Your task to perform on an android device: turn on data saver in the chrome app Image 0: 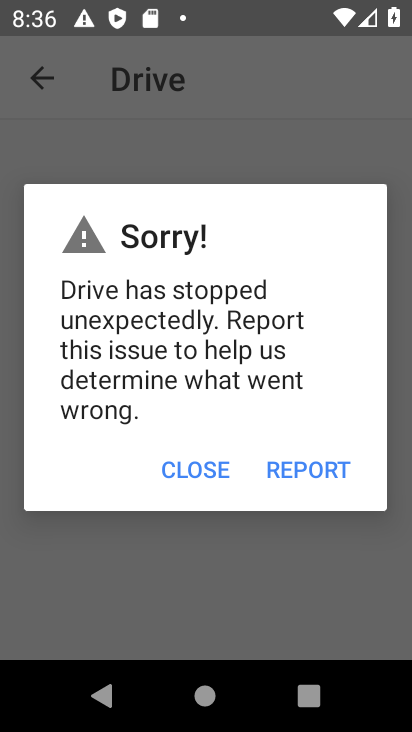
Step 0: press home button
Your task to perform on an android device: turn on data saver in the chrome app Image 1: 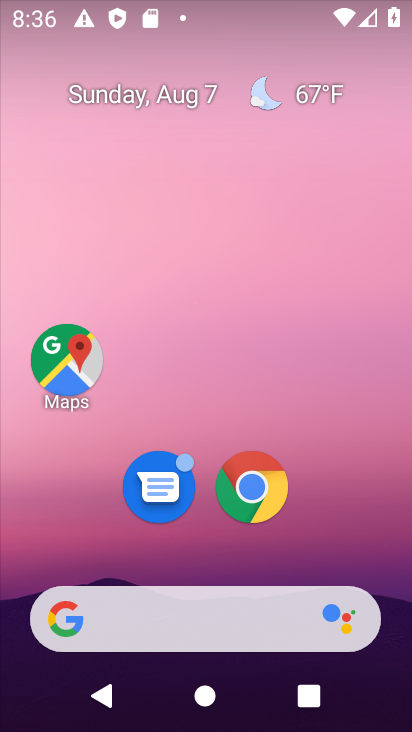
Step 1: click (254, 486)
Your task to perform on an android device: turn on data saver in the chrome app Image 2: 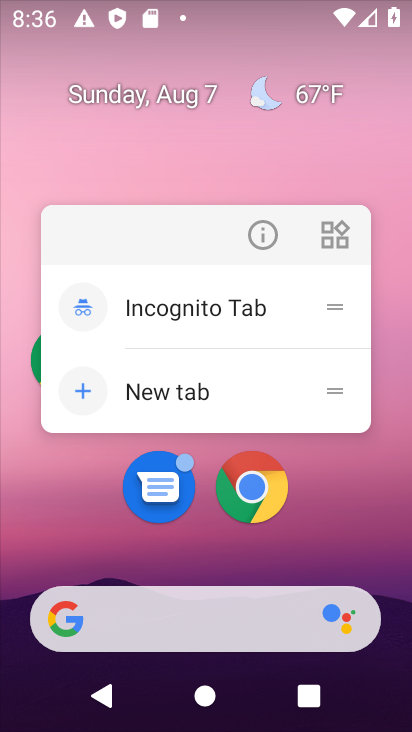
Step 2: click (256, 481)
Your task to perform on an android device: turn on data saver in the chrome app Image 3: 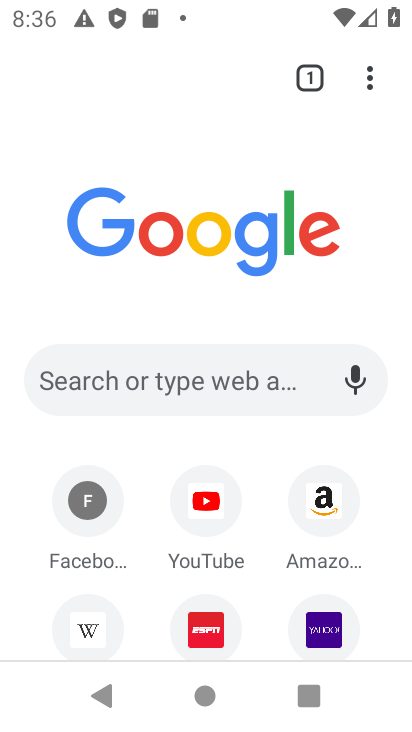
Step 3: click (370, 77)
Your task to perform on an android device: turn on data saver in the chrome app Image 4: 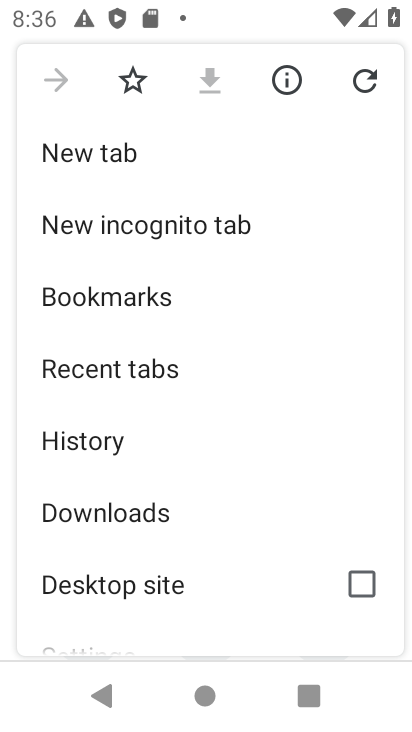
Step 4: drag from (226, 604) to (252, 241)
Your task to perform on an android device: turn on data saver in the chrome app Image 5: 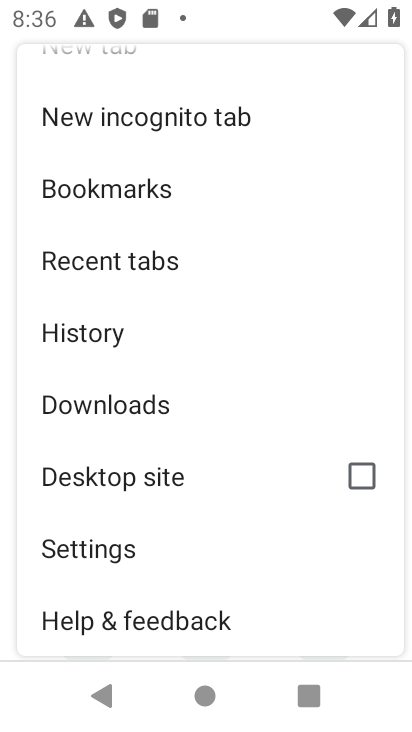
Step 5: drag from (240, 506) to (254, 224)
Your task to perform on an android device: turn on data saver in the chrome app Image 6: 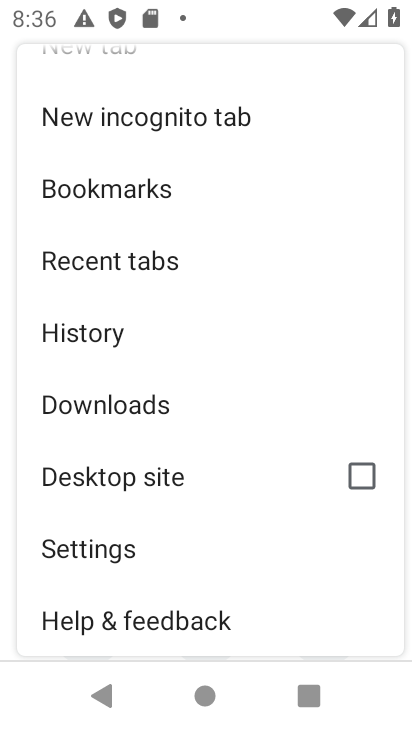
Step 6: click (80, 540)
Your task to perform on an android device: turn on data saver in the chrome app Image 7: 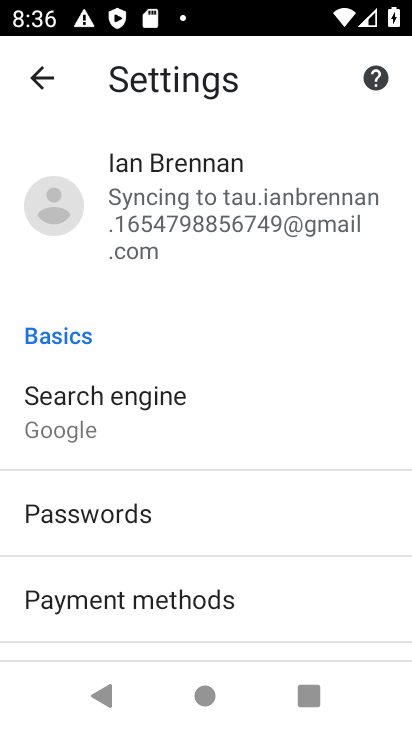
Step 7: drag from (245, 565) to (237, 174)
Your task to perform on an android device: turn on data saver in the chrome app Image 8: 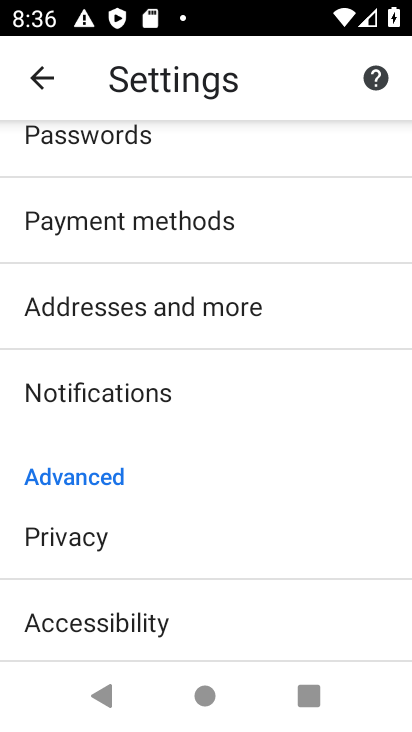
Step 8: drag from (221, 628) to (211, 283)
Your task to perform on an android device: turn on data saver in the chrome app Image 9: 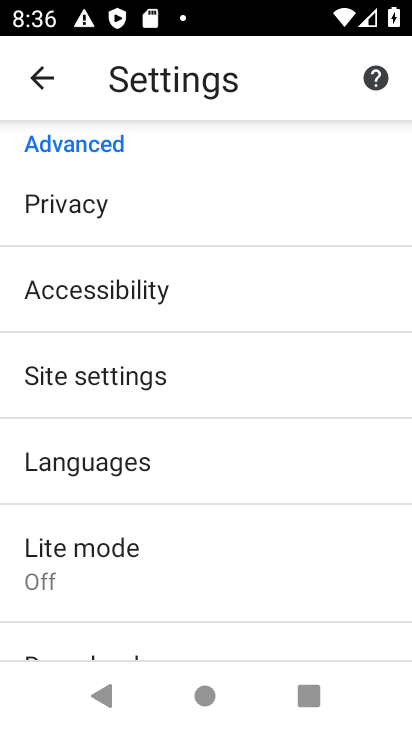
Step 9: drag from (225, 591) to (252, 234)
Your task to perform on an android device: turn on data saver in the chrome app Image 10: 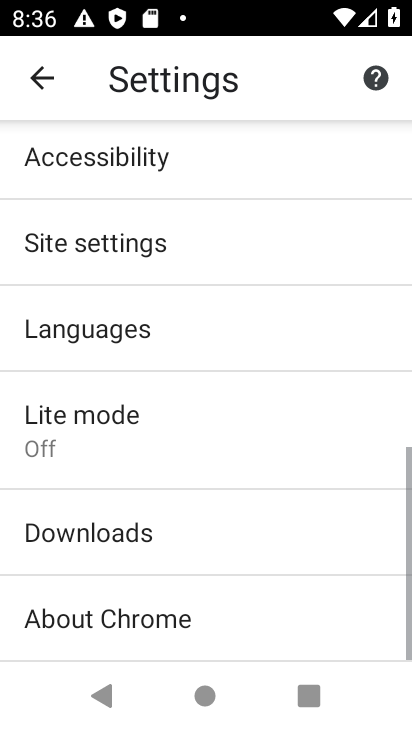
Step 10: click (83, 431)
Your task to perform on an android device: turn on data saver in the chrome app Image 11: 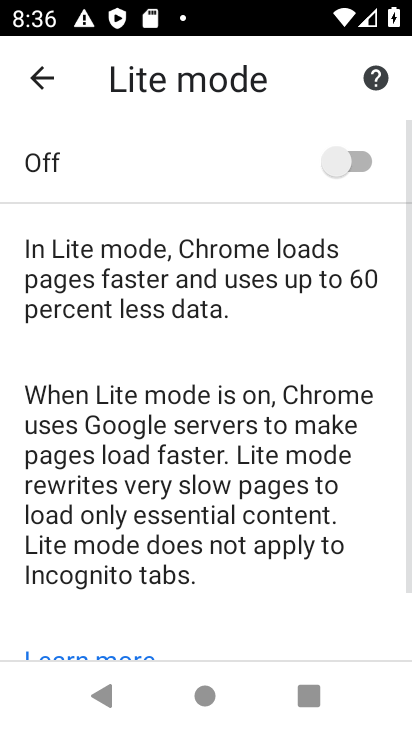
Step 11: click (361, 150)
Your task to perform on an android device: turn on data saver in the chrome app Image 12: 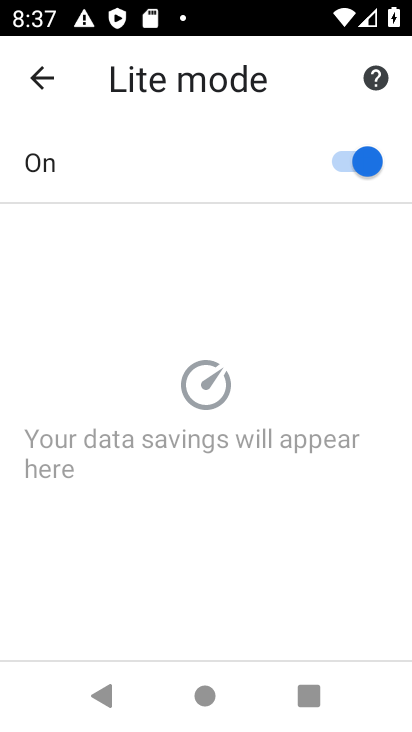
Step 12: task complete